Your task to perform on an android device: When is my next meeting? Image 0: 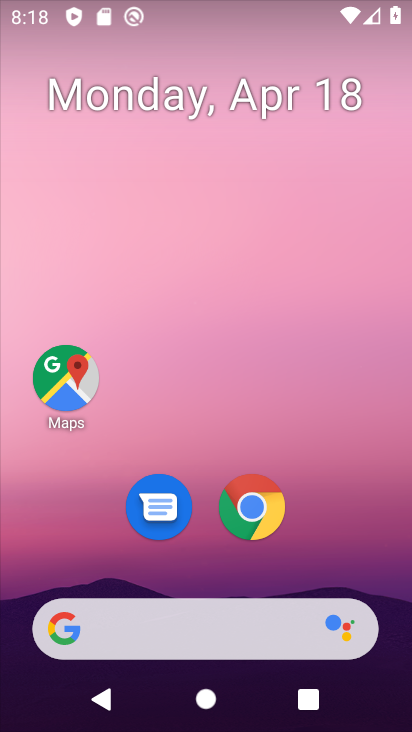
Step 0: drag from (176, 560) to (191, 124)
Your task to perform on an android device: When is my next meeting? Image 1: 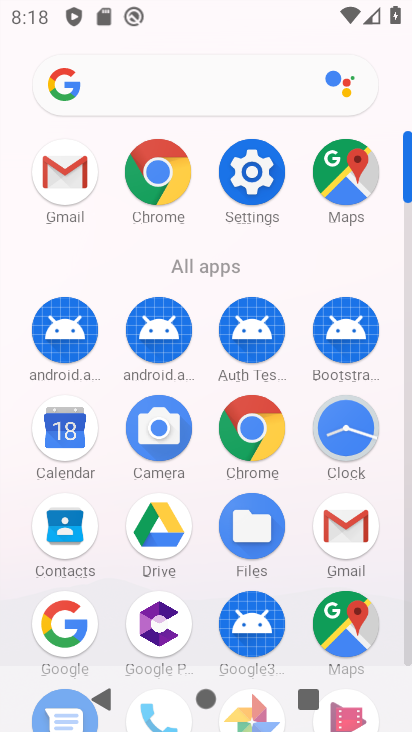
Step 1: click (65, 451)
Your task to perform on an android device: When is my next meeting? Image 2: 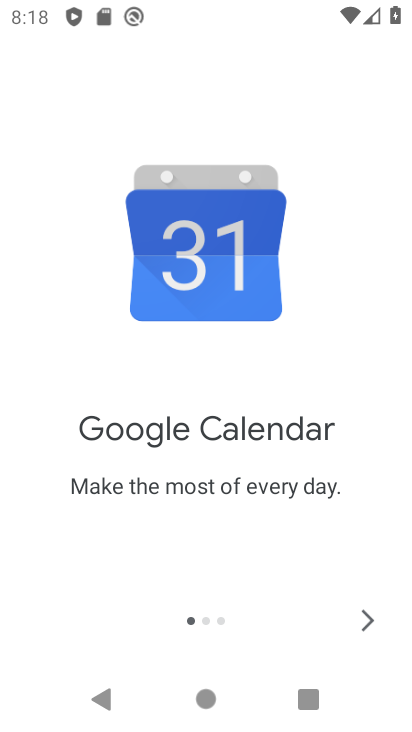
Step 2: click (366, 609)
Your task to perform on an android device: When is my next meeting? Image 3: 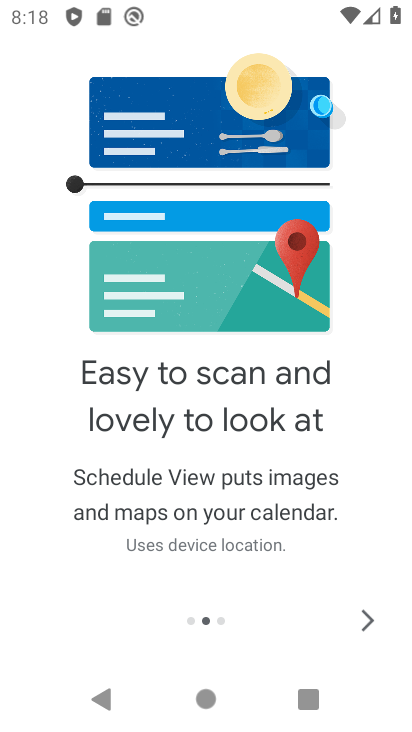
Step 3: click (370, 612)
Your task to perform on an android device: When is my next meeting? Image 4: 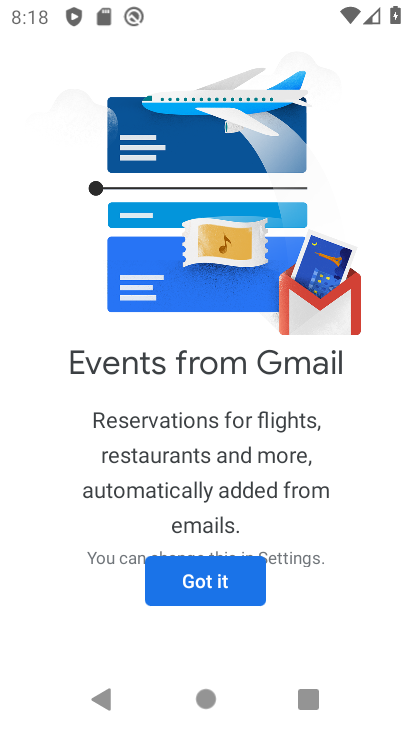
Step 4: click (236, 584)
Your task to perform on an android device: When is my next meeting? Image 5: 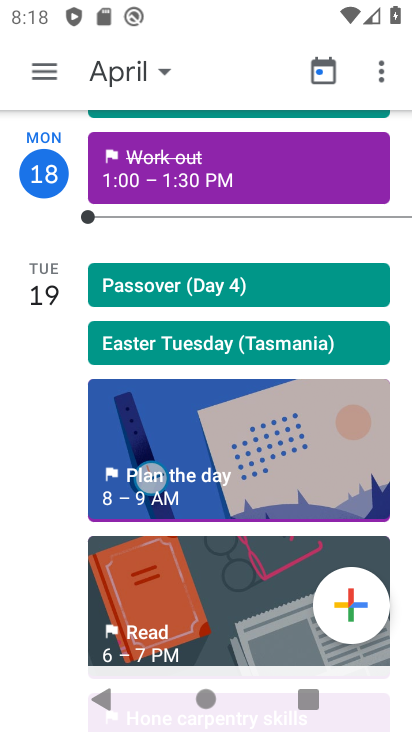
Step 5: click (43, 66)
Your task to perform on an android device: When is my next meeting? Image 6: 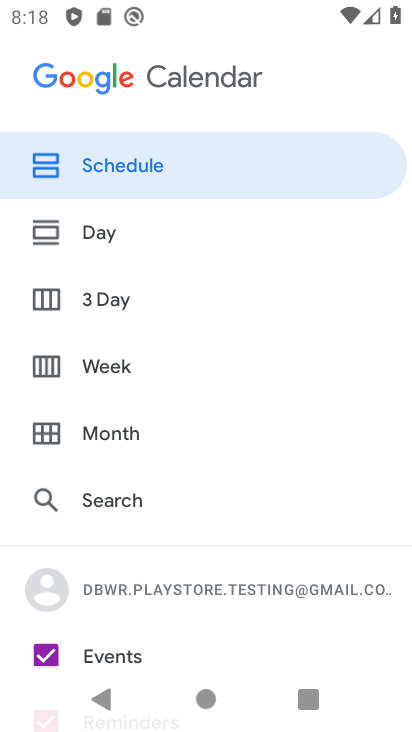
Step 6: drag from (131, 585) to (133, 214)
Your task to perform on an android device: When is my next meeting? Image 7: 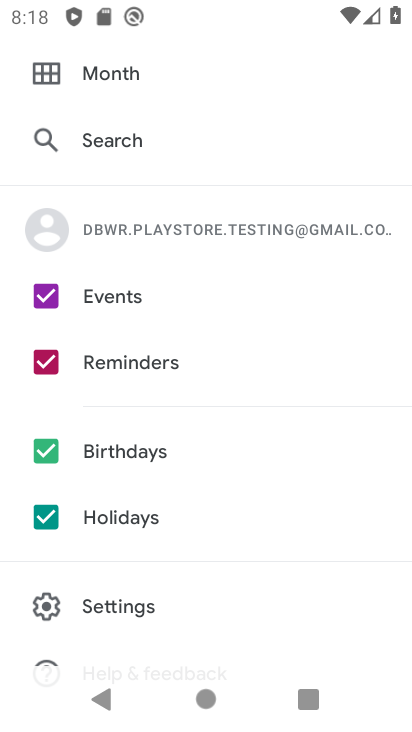
Step 7: click (128, 446)
Your task to perform on an android device: When is my next meeting? Image 8: 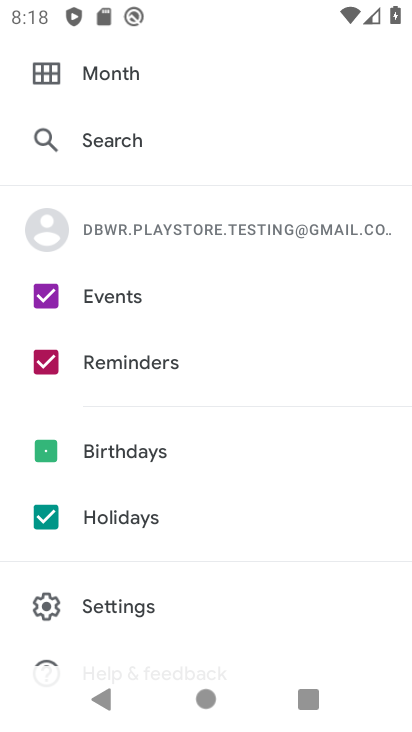
Step 8: click (47, 513)
Your task to perform on an android device: When is my next meeting? Image 9: 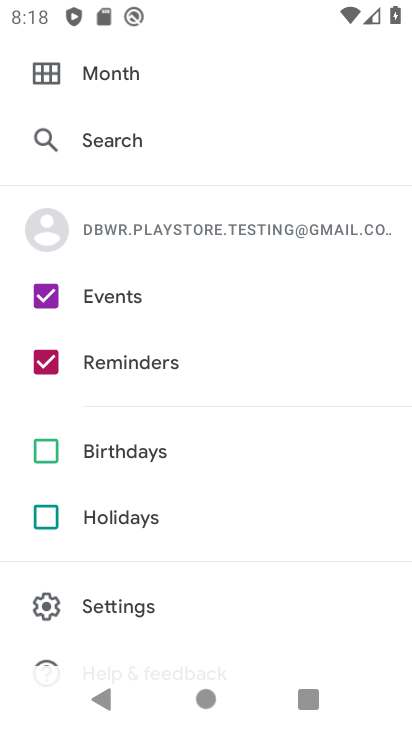
Step 9: drag from (228, 187) to (250, 520)
Your task to perform on an android device: When is my next meeting? Image 10: 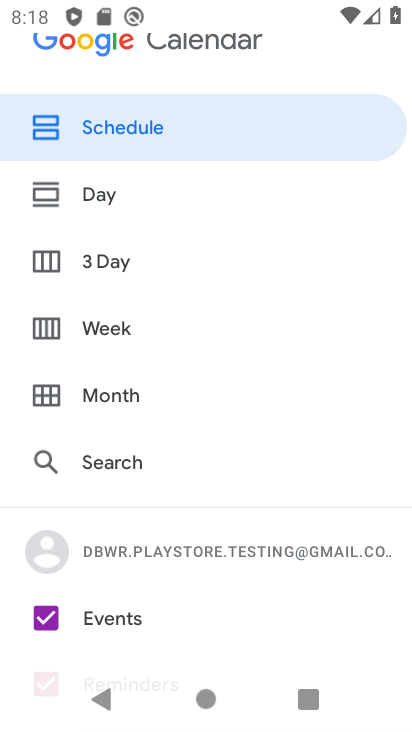
Step 10: click (138, 136)
Your task to perform on an android device: When is my next meeting? Image 11: 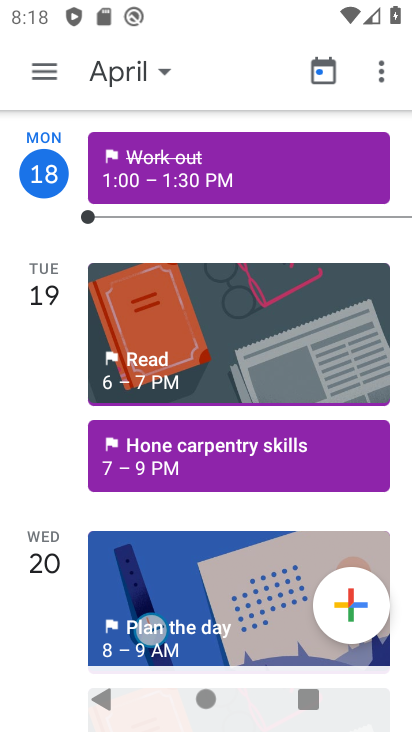
Step 11: task complete